Your task to perform on an android device: Go to location settings Image 0: 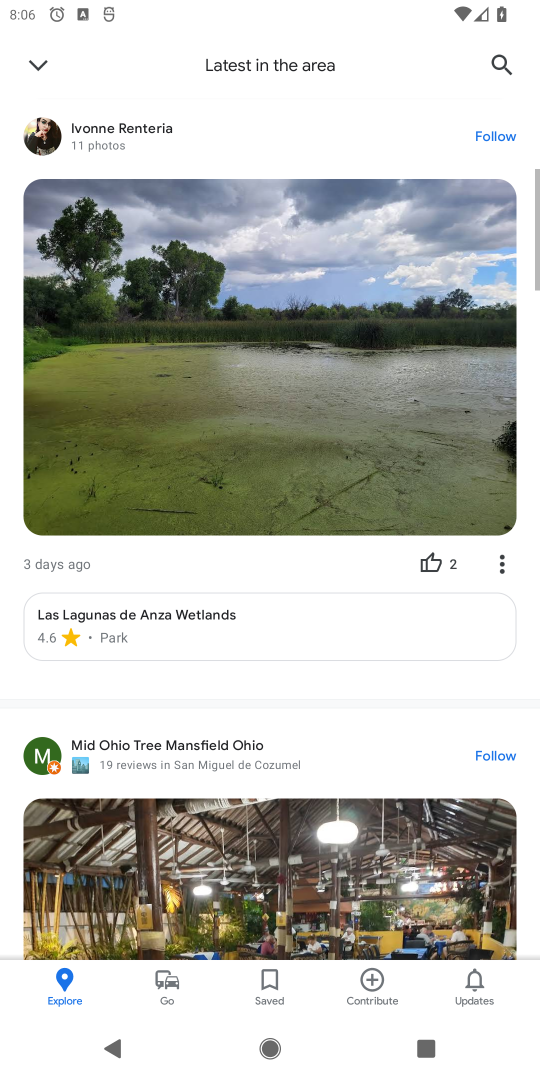
Step 0: press home button
Your task to perform on an android device: Go to location settings Image 1: 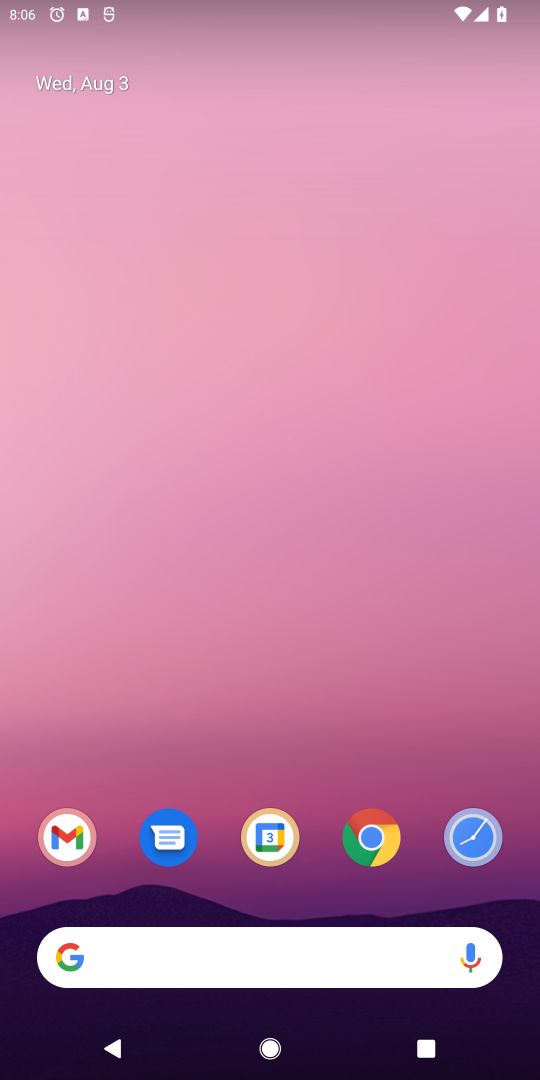
Step 1: drag from (279, 901) to (324, 261)
Your task to perform on an android device: Go to location settings Image 2: 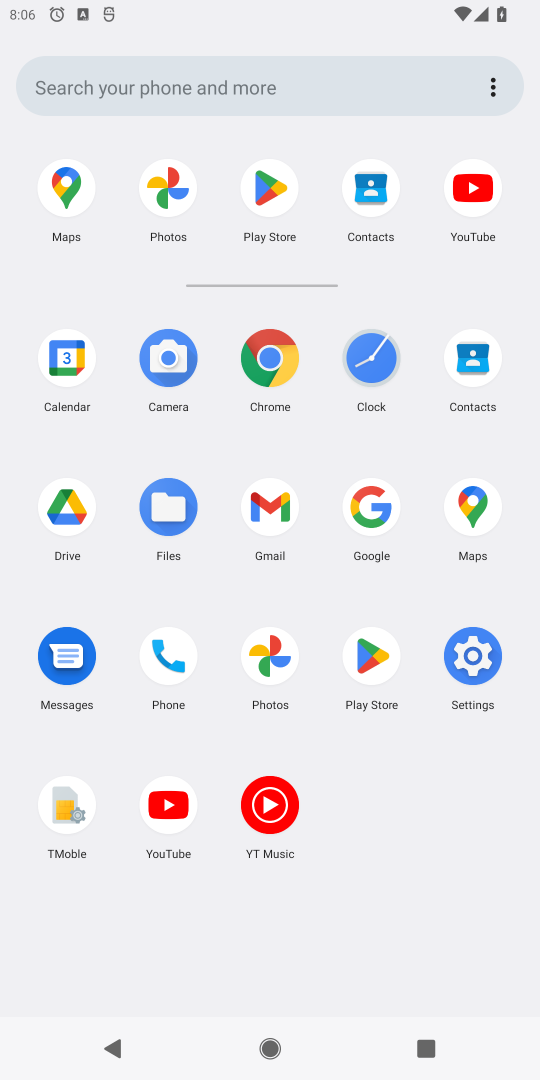
Step 2: click (478, 668)
Your task to perform on an android device: Go to location settings Image 3: 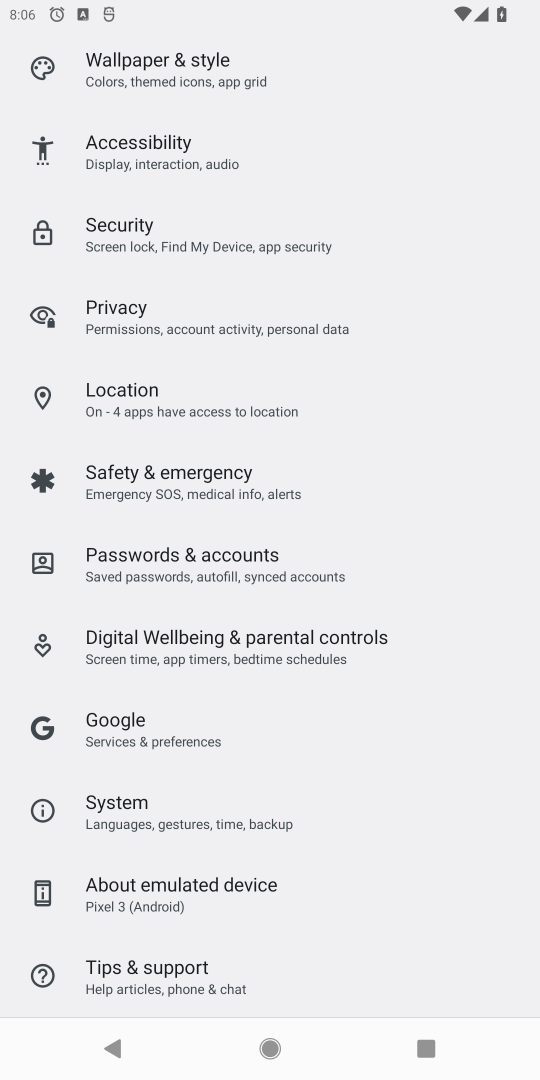
Step 3: click (119, 406)
Your task to perform on an android device: Go to location settings Image 4: 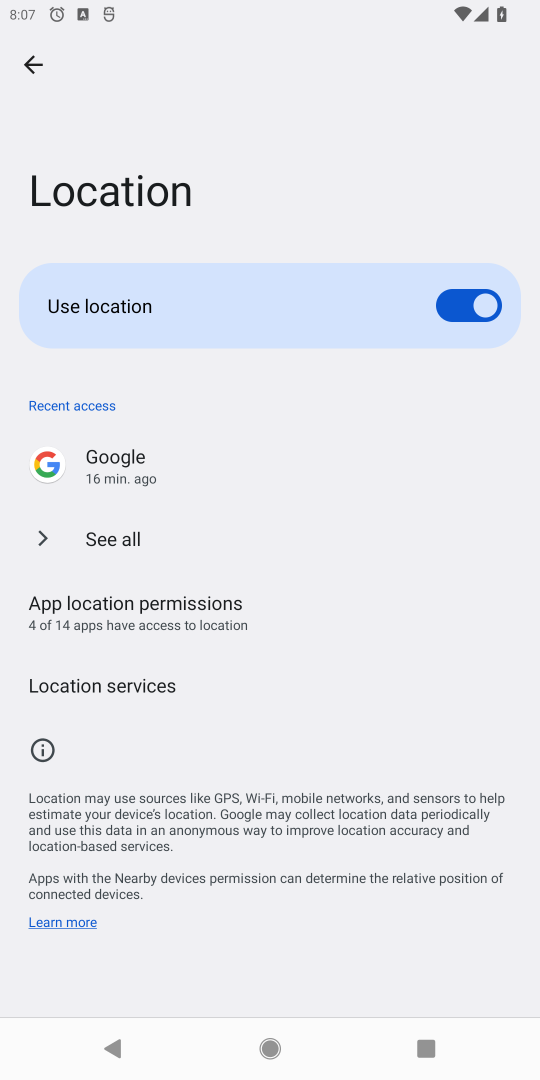
Step 4: task complete